Your task to perform on an android device: change the clock display to analog Image 0: 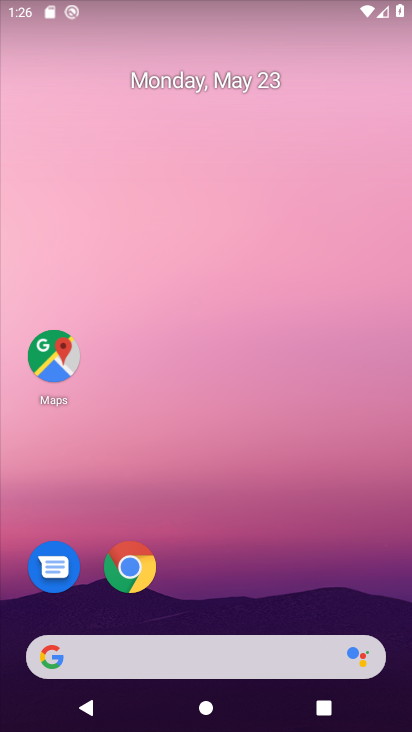
Step 0: drag from (240, 550) to (191, 160)
Your task to perform on an android device: change the clock display to analog Image 1: 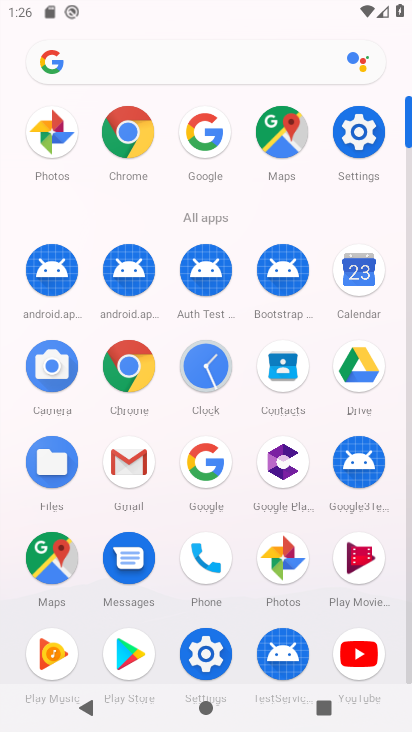
Step 1: click (214, 368)
Your task to perform on an android device: change the clock display to analog Image 2: 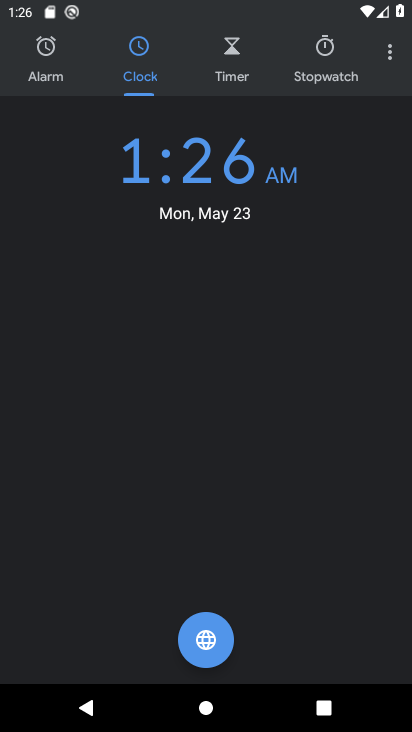
Step 2: click (391, 61)
Your task to perform on an android device: change the clock display to analog Image 3: 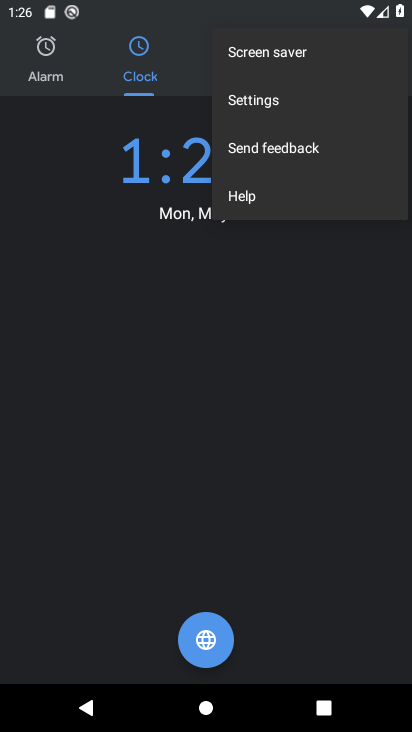
Step 3: click (300, 105)
Your task to perform on an android device: change the clock display to analog Image 4: 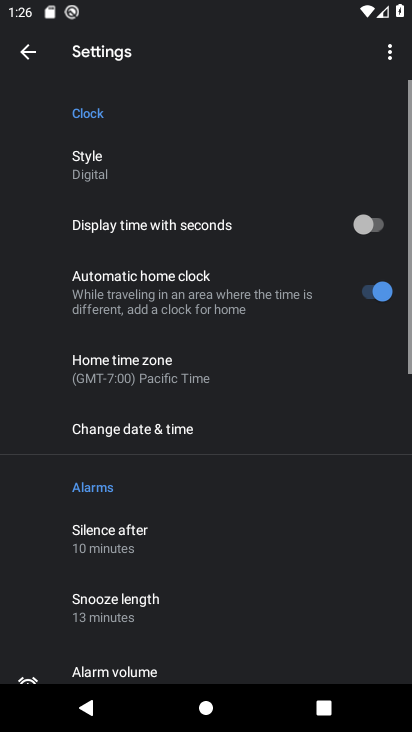
Step 4: click (174, 169)
Your task to perform on an android device: change the clock display to analog Image 5: 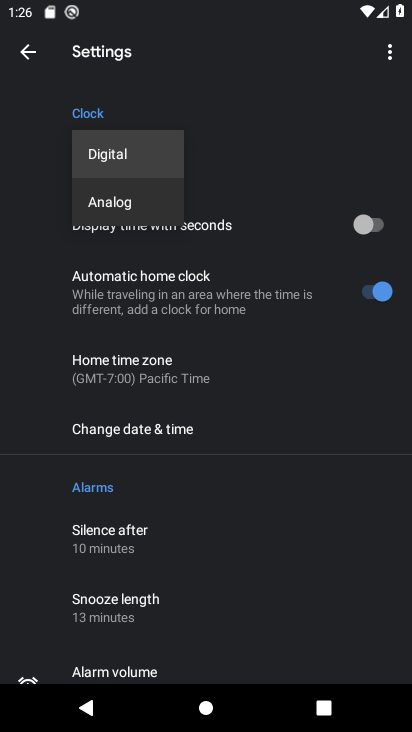
Step 5: click (137, 208)
Your task to perform on an android device: change the clock display to analog Image 6: 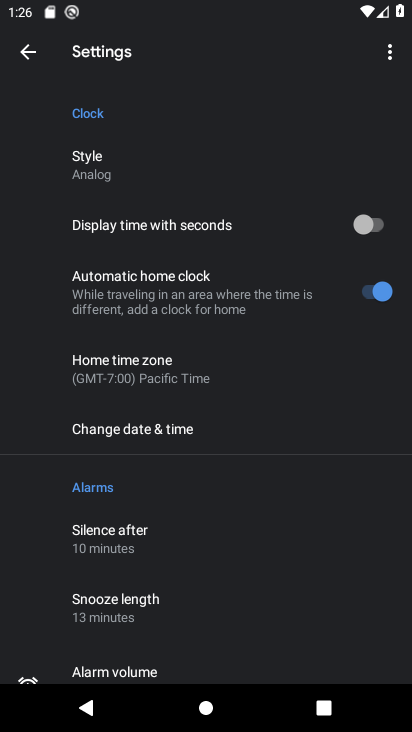
Step 6: task complete